Your task to perform on an android device: Turn off the flashlight Image 0: 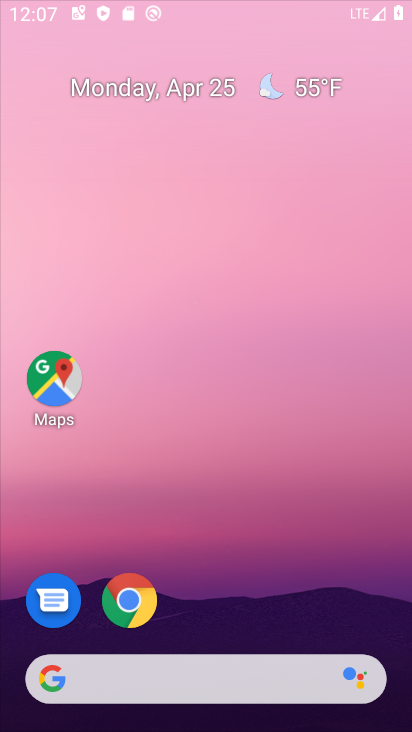
Step 0: drag from (248, 65) to (388, 126)
Your task to perform on an android device: Turn off the flashlight Image 1: 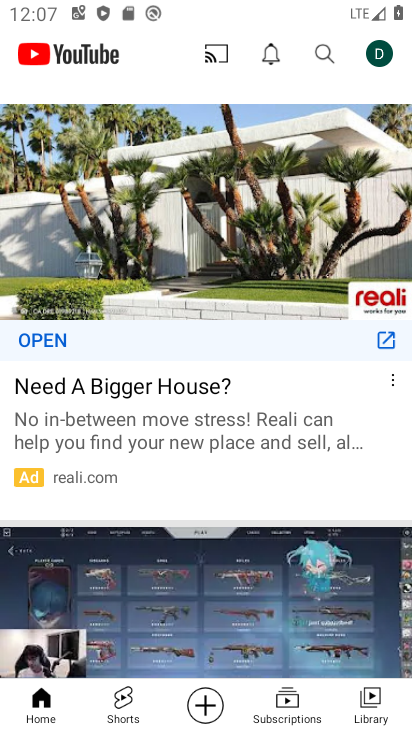
Step 1: task complete